Your task to perform on an android device: Toggle the flashlight Image 0: 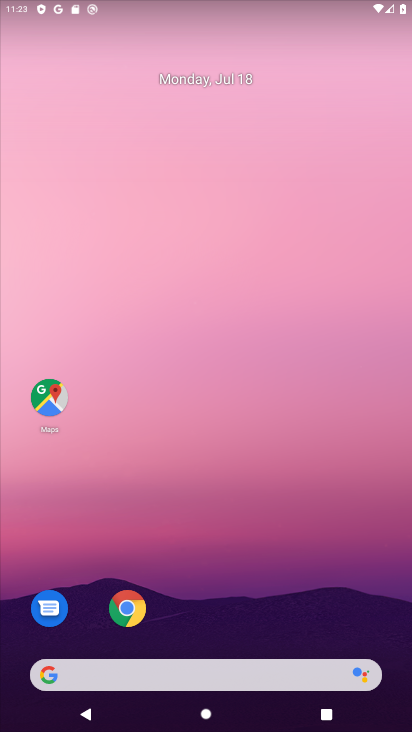
Step 0: drag from (253, 631) to (280, 24)
Your task to perform on an android device: Toggle the flashlight Image 1: 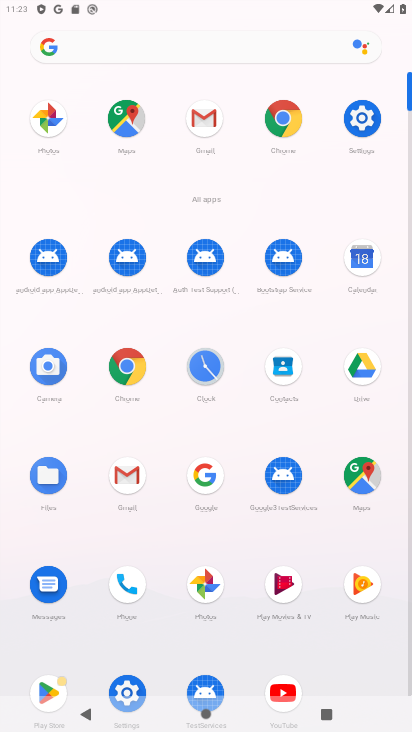
Step 1: click (358, 107)
Your task to perform on an android device: Toggle the flashlight Image 2: 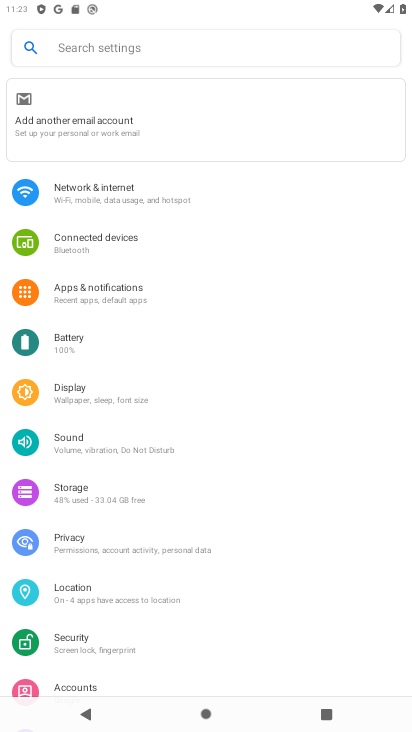
Step 2: task complete